Your task to perform on an android device: set an alarm Image 0: 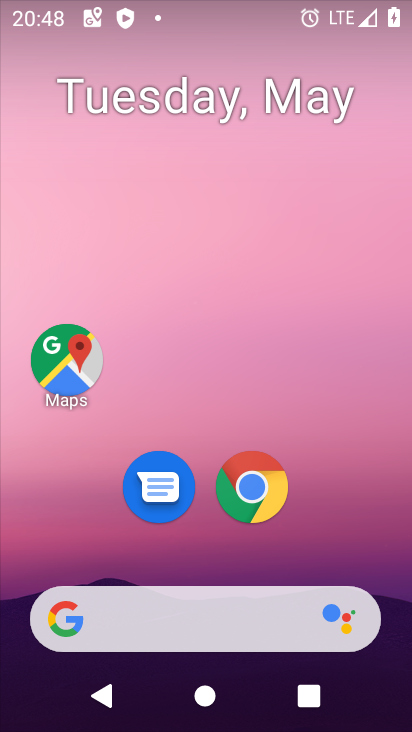
Step 0: drag from (343, 500) to (227, 31)
Your task to perform on an android device: set an alarm Image 1: 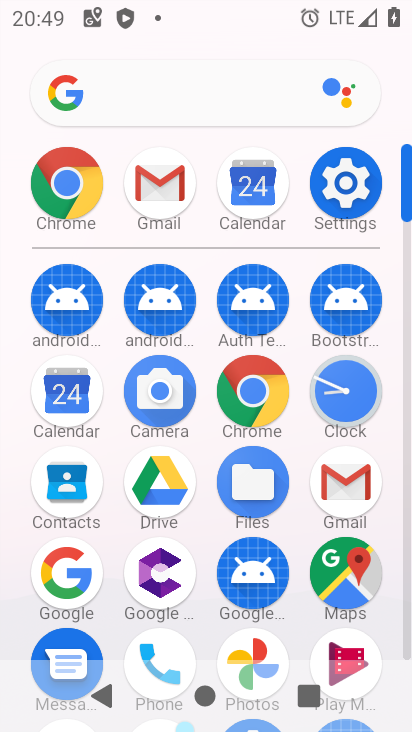
Step 1: click (332, 384)
Your task to perform on an android device: set an alarm Image 2: 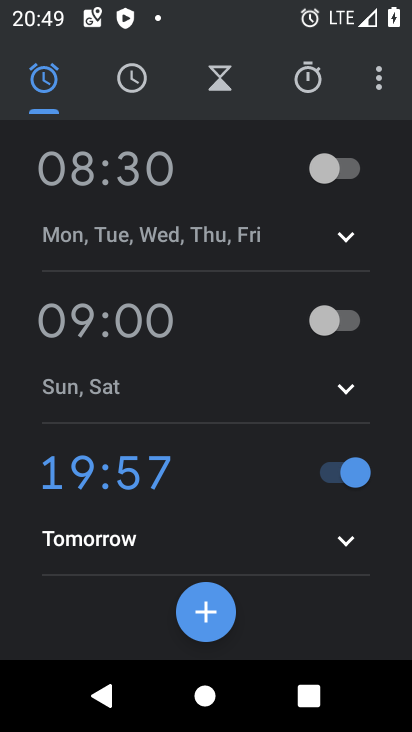
Step 2: click (210, 606)
Your task to perform on an android device: set an alarm Image 3: 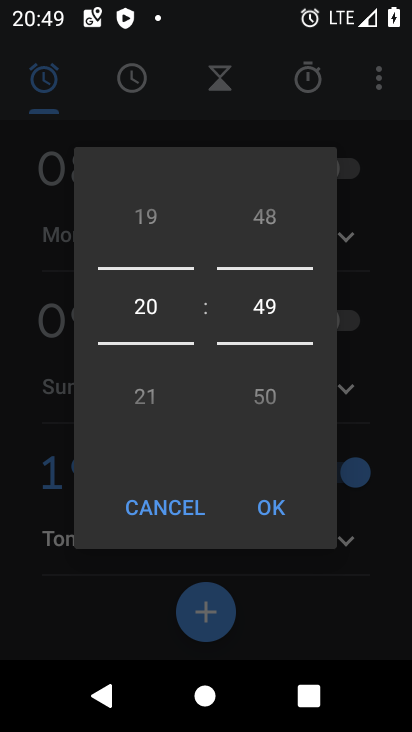
Step 3: click (272, 508)
Your task to perform on an android device: set an alarm Image 4: 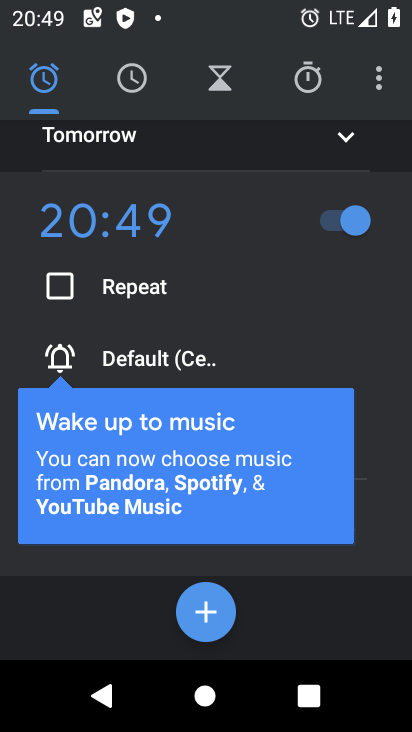
Step 4: task complete